Your task to perform on an android device: change timer sound Image 0: 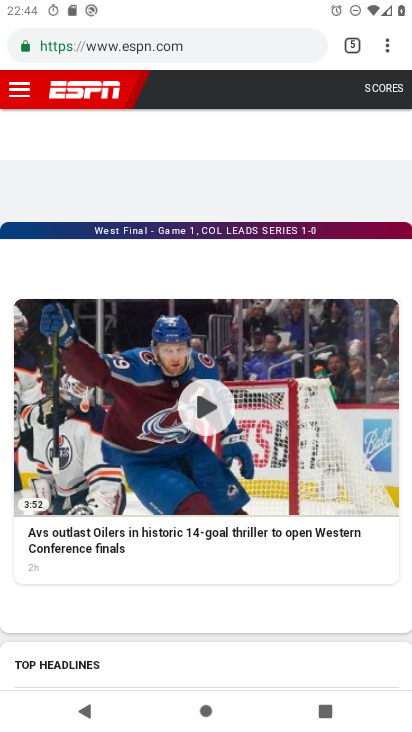
Step 0: press home button
Your task to perform on an android device: change timer sound Image 1: 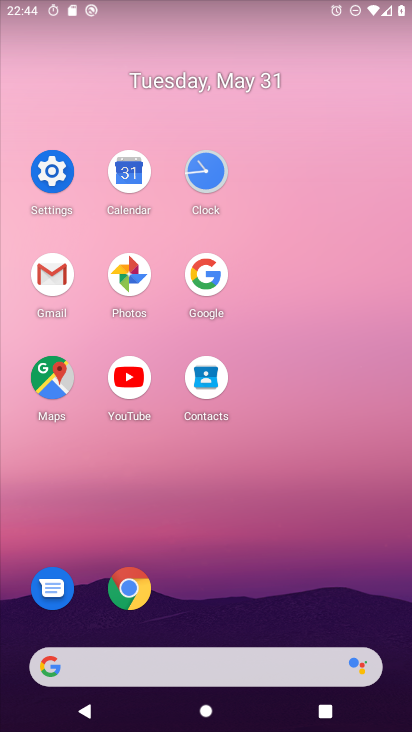
Step 1: click (213, 172)
Your task to perform on an android device: change timer sound Image 2: 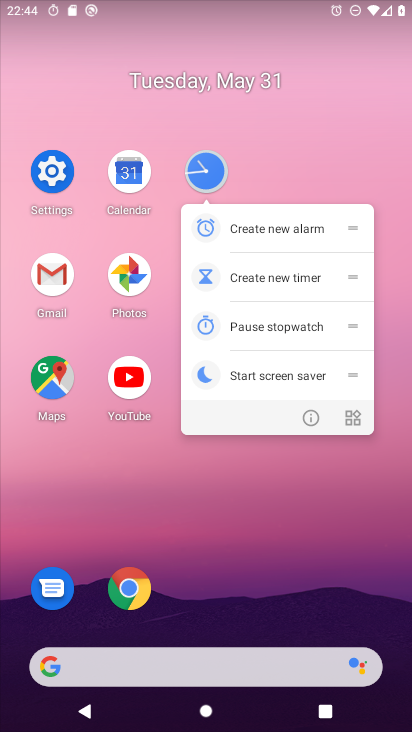
Step 2: click (213, 172)
Your task to perform on an android device: change timer sound Image 3: 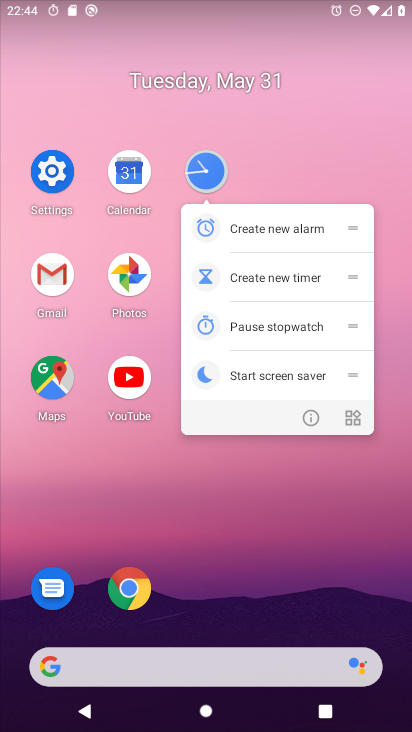
Step 3: click (213, 172)
Your task to perform on an android device: change timer sound Image 4: 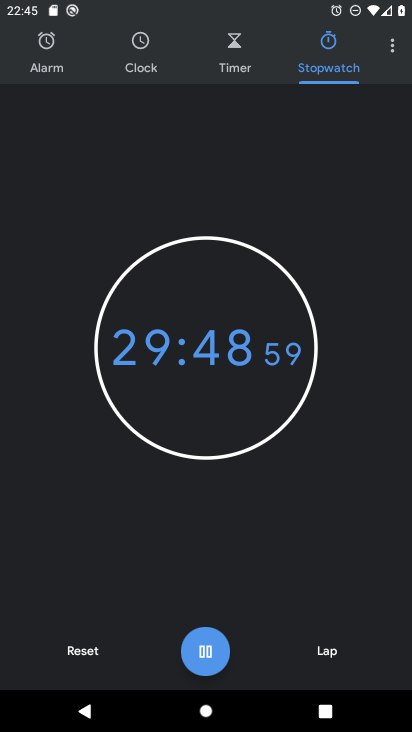
Step 4: click (383, 47)
Your task to perform on an android device: change timer sound Image 5: 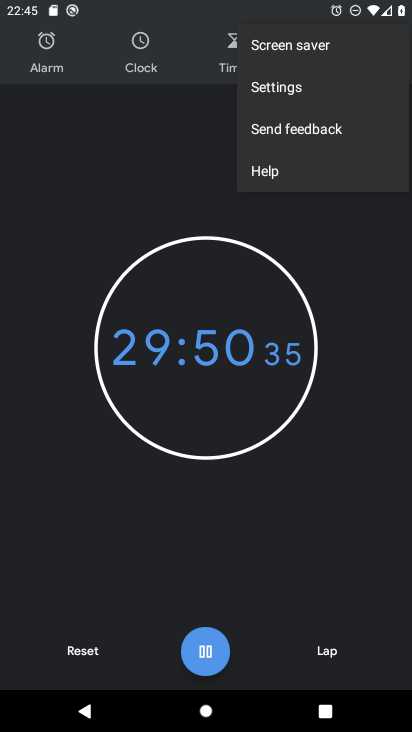
Step 5: click (301, 86)
Your task to perform on an android device: change timer sound Image 6: 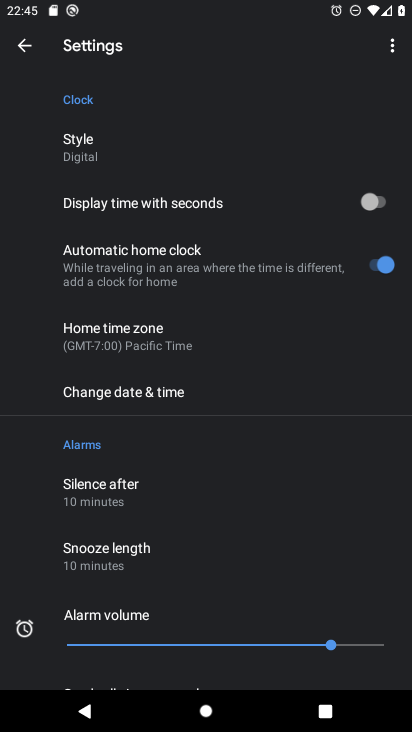
Step 6: drag from (193, 505) to (211, 195)
Your task to perform on an android device: change timer sound Image 7: 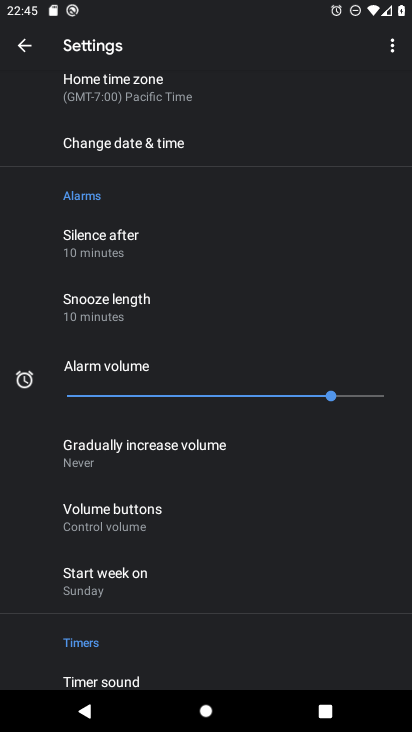
Step 7: drag from (177, 570) to (229, 219)
Your task to perform on an android device: change timer sound Image 8: 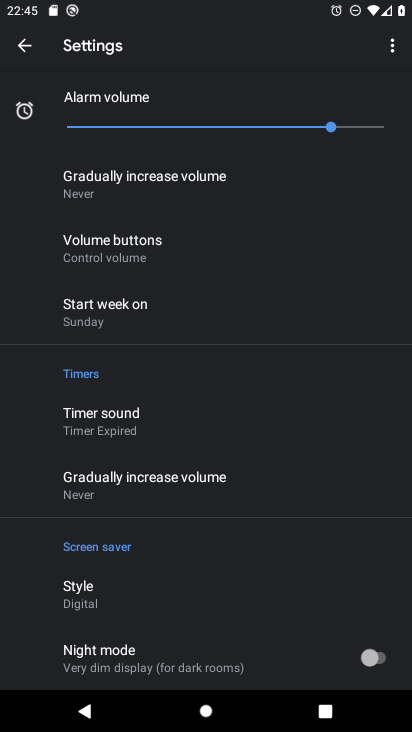
Step 8: click (184, 435)
Your task to perform on an android device: change timer sound Image 9: 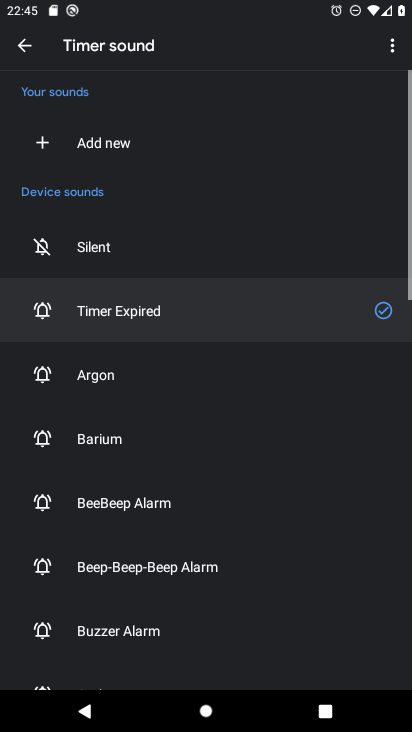
Step 9: click (141, 393)
Your task to perform on an android device: change timer sound Image 10: 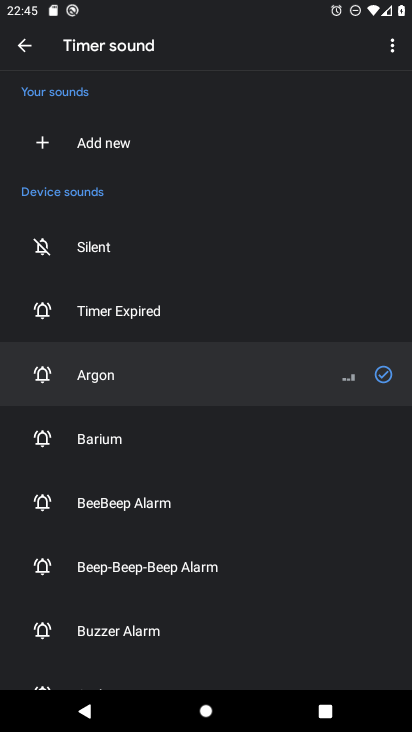
Step 10: task complete